Your task to perform on an android device: change notifications settings Image 0: 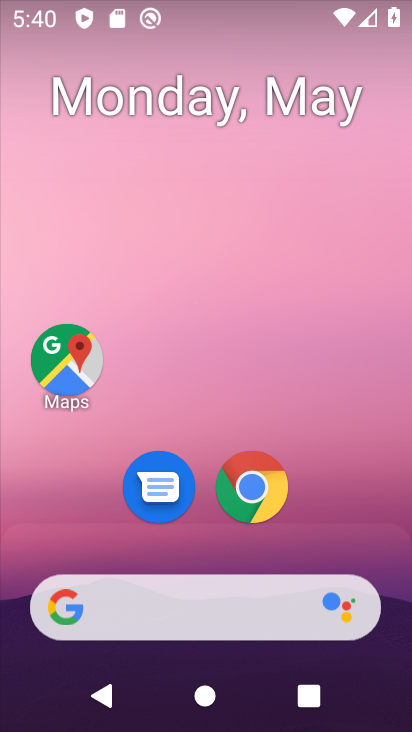
Step 0: press home button
Your task to perform on an android device: change notifications settings Image 1: 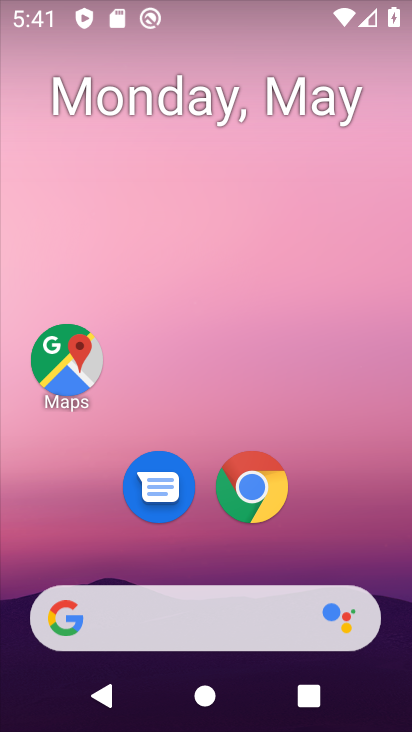
Step 1: drag from (203, 540) to (202, 9)
Your task to perform on an android device: change notifications settings Image 2: 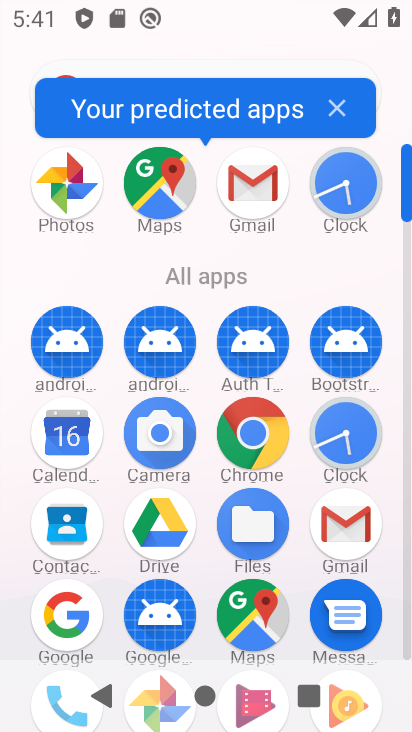
Step 2: drag from (206, 643) to (206, 148)
Your task to perform on an android device: change notifications settings Image 3: 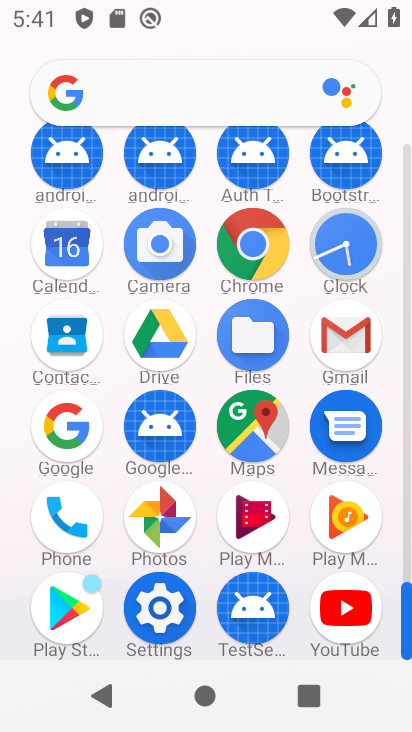
Step 3: click (152, 604)
Your task to perform on an android device: change notifications settings Image 4: 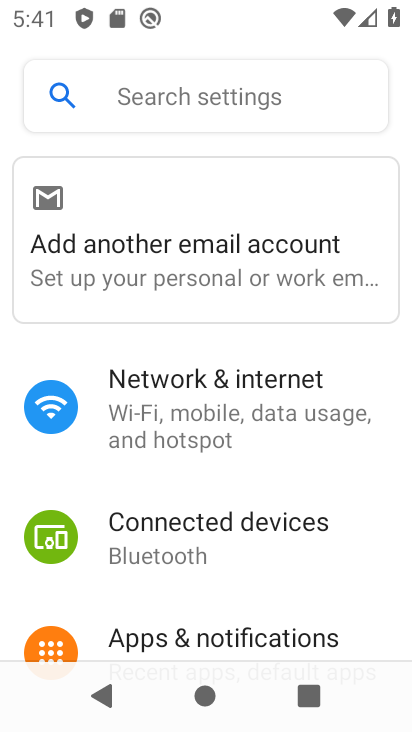
Step 4: click (179, 625)
Your task to perform on an android device: change notifications settings Image 5: 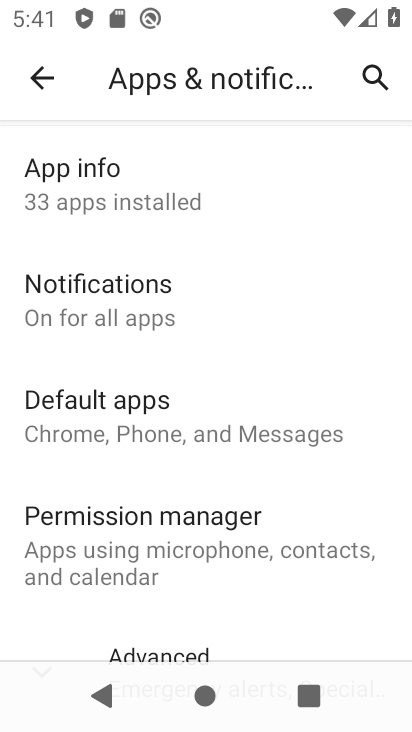
Step 5: click (103, 305)
Your task to perform on an android device: change notifications settings Image 6: 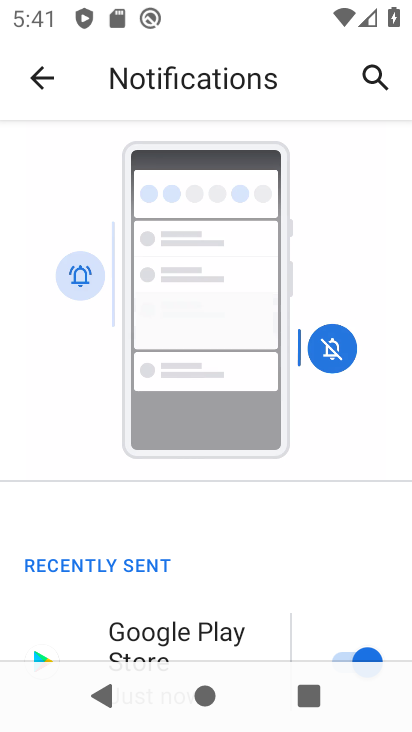
Step 6: drag from (232, 557) to (232, 233)
Your task to perform on an android device: change notifications settings Image 7: 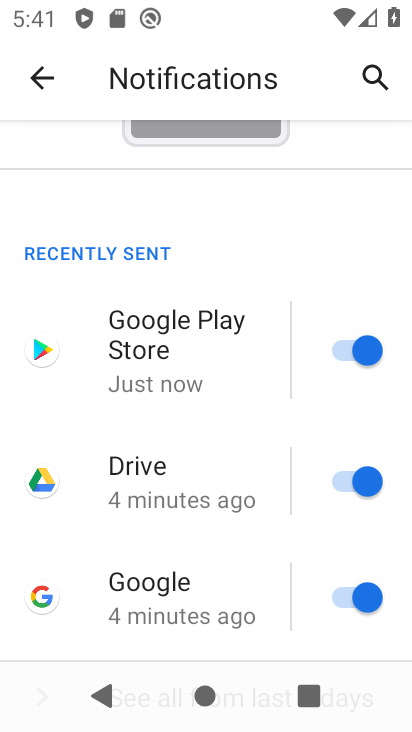
Step 7: drag from (181, 611) to (210, 213)
Your task to perform on an android device: change notifications settings Image 8: 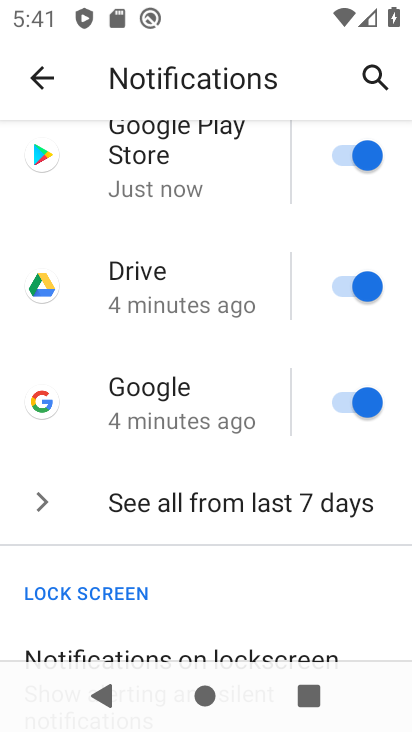
Step 8: drag from (208, 582) to (211, 165)
Your task to perform on an android device: change notifications settings Image 9: 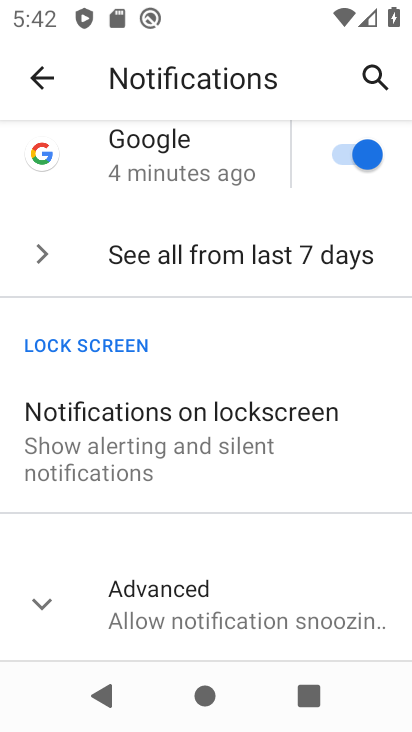
Step 9: drag from (235, 223) to (223, 601)
Your task to perform on an android device: change notifications settings Image 10: 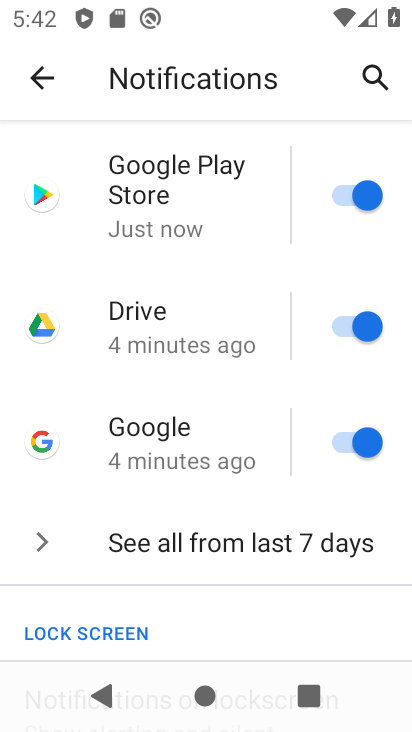
Step 10: click (351, 200)
Your task to perform on an android device: change notifications settings Image 11: 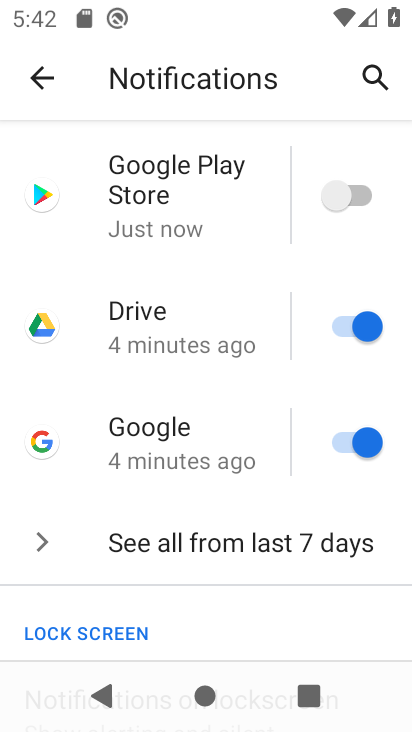
Step 11: click (345, 329)
Your task to perform on an android device: change notifications settings Image 12: 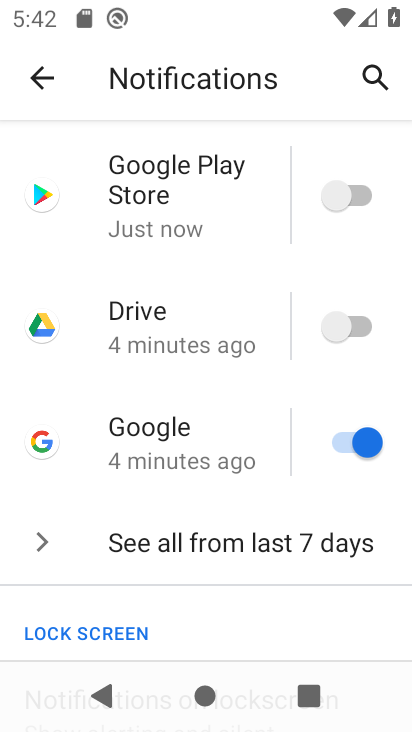
Step 12: click (352, 437)
Your task to perform on an android device: change notifications settings Image 13: 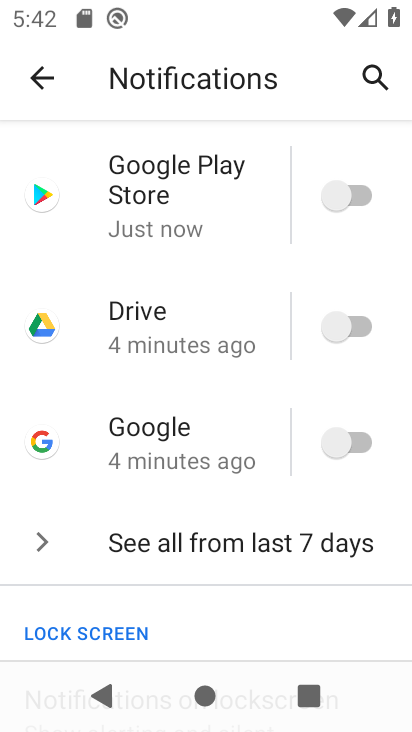
Step 13: drag from (222, 580) to (264, 223)
Your task to perform on an android device: change notifications settings Image 14: 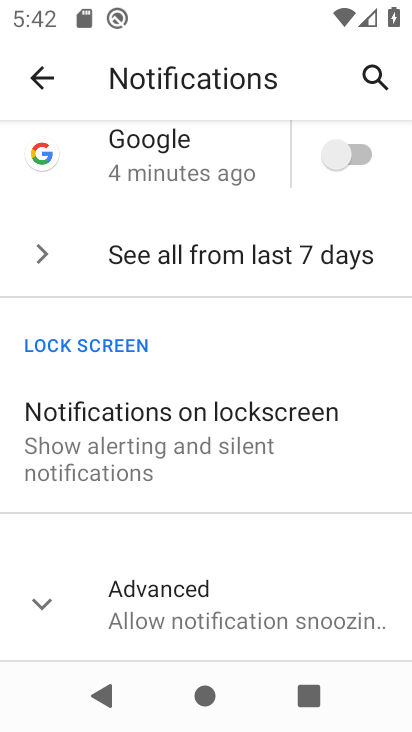
Step 14: click (194, 430)
Your task to perform on an android device: change notifications settings Image 15: 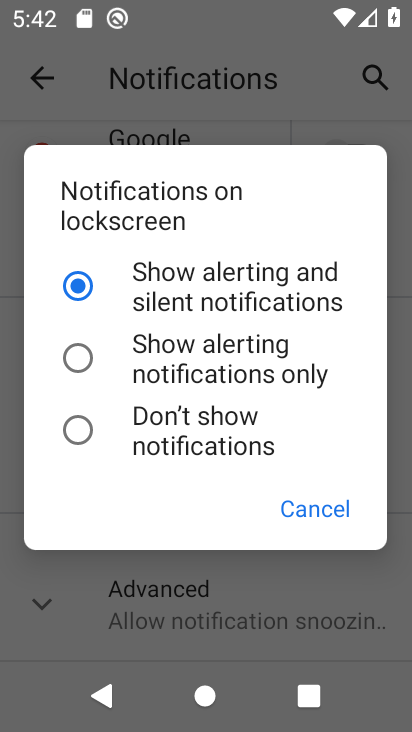
Step 15: click (83, 360)
Your task to perform on an android device: change notifications settings Image 16: 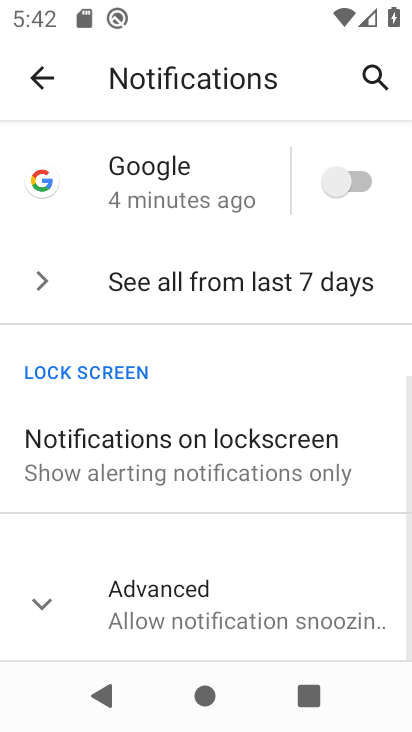
Step 16: task complete